Your task to perform on an android device: check storage Image 0: 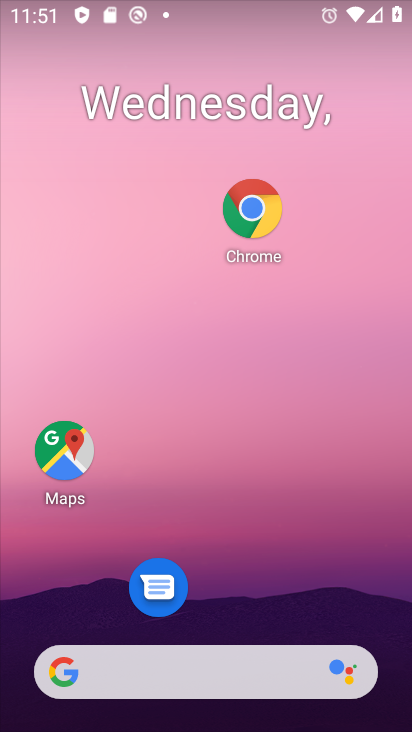
Step 0: drag from (266, 606) to (341, 12)
Your task to perform on an android device: check storage Image 1: 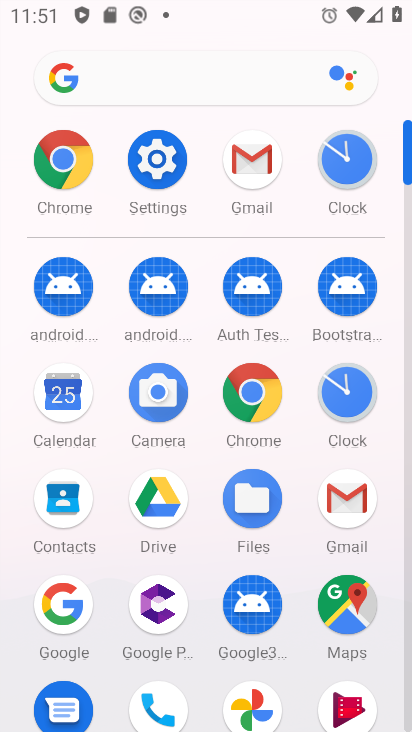
Step 1: click (161, 164)
Your task to perform on an android device: check storage Image 2: 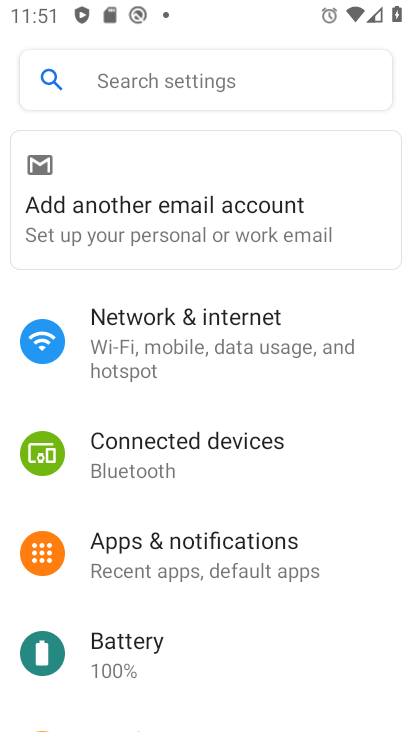
Step 2: drag from (180, 640) to (271, 293)
Your task to perform on an android device: check storage Image 3: 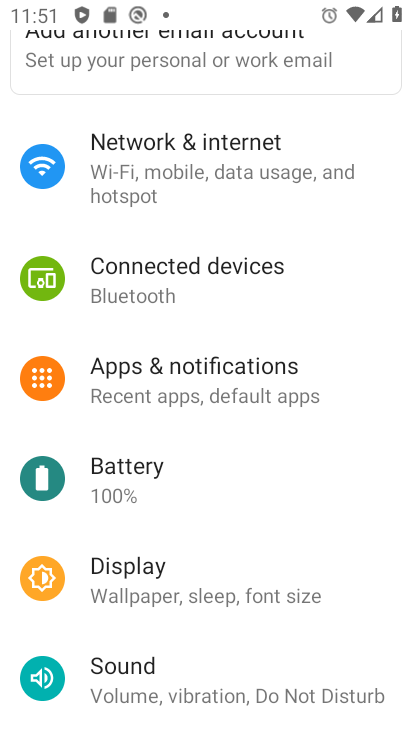
Step 3: click (170, 310)
Your task to perform on an android device: check storage Image 4: 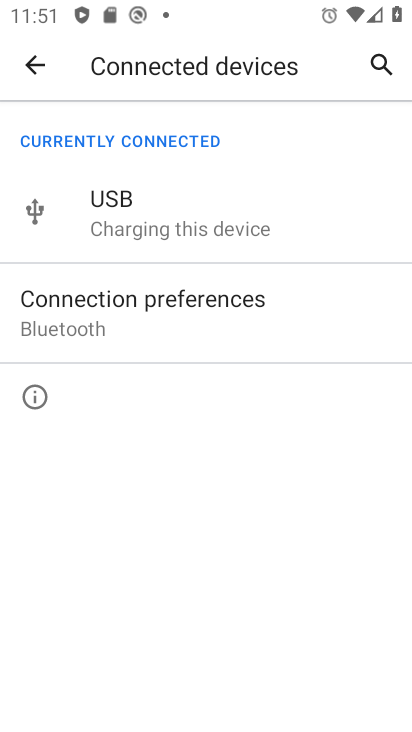
Step 4: click (30, 76)
Your task to perform on an android device: check storage Image 5: 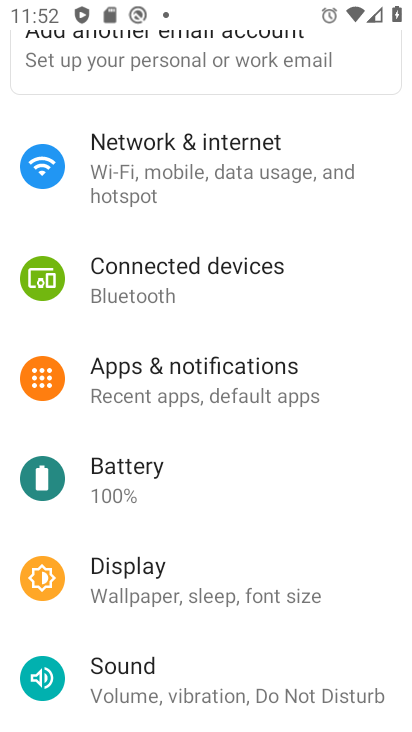
Step 5: drag from (182, 603) to (236, 157)
Your task to perform on an android device: check storage Image 6: 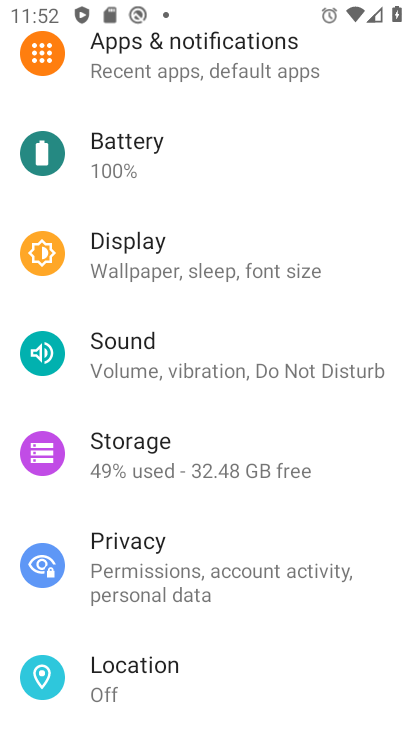
Step 6: click (135, 457)
Your task to perform on an android device: check storage Image 7: 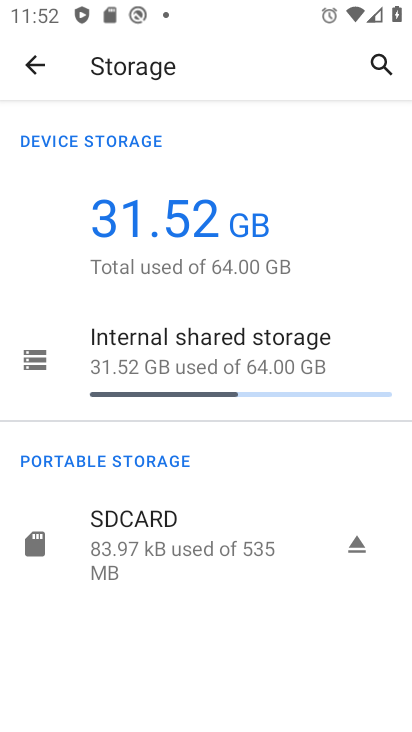
Step 7: task complete